Your task to perform on an android device: Go to ESPN.com Image 0: 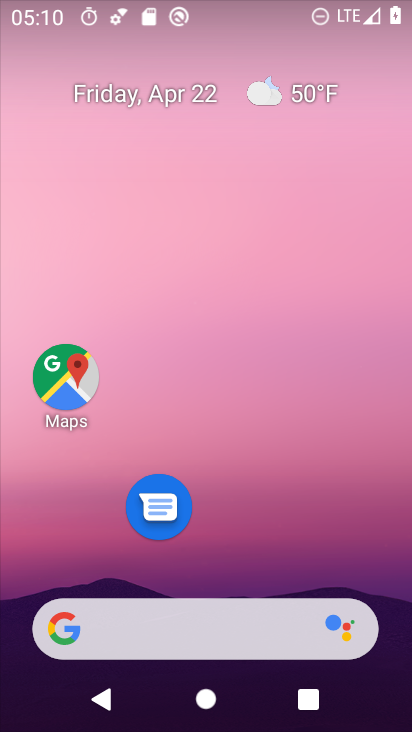
Step 0: drag from (231, 433) to (287, 63)
Your task to perform on an android device: Go to ESPN.com Image 1: 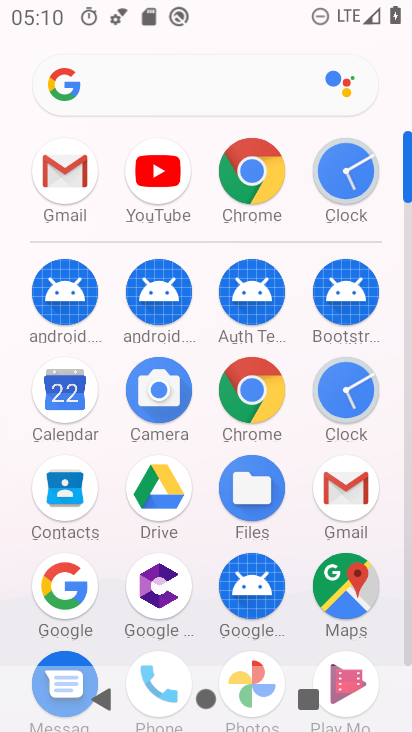
Step 1: click (253, 168)
Your task to perform on an android device: Go to ESPN.com Image 2: 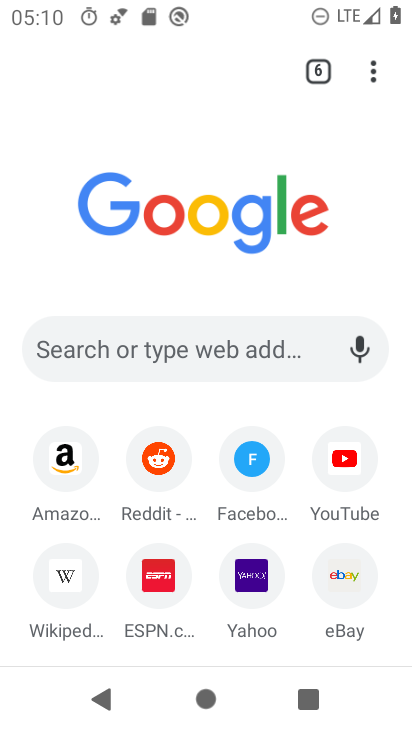
Step 2: click (155, 572)
Your task to perform on an android device: Go to ESPN.com Image 3: 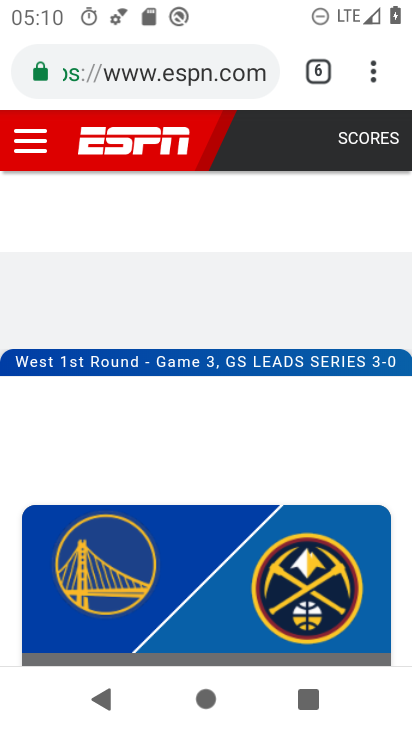
Step 3: task complete